Your task to perform on an android device: Go to Maps Image 0: 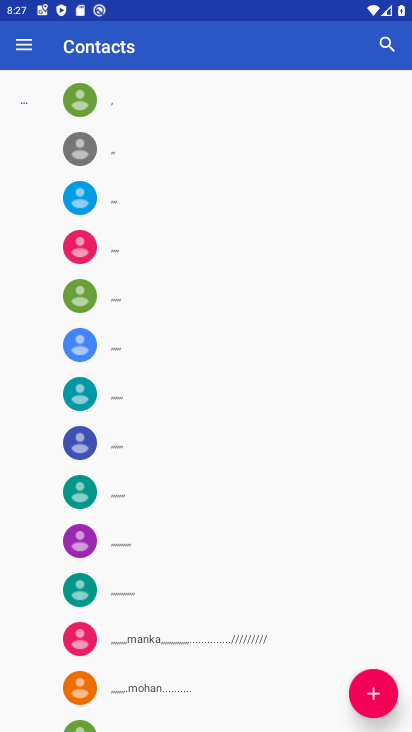
Step 0: press home button
Your task to perform on an android device: Go to Maps Image 1: 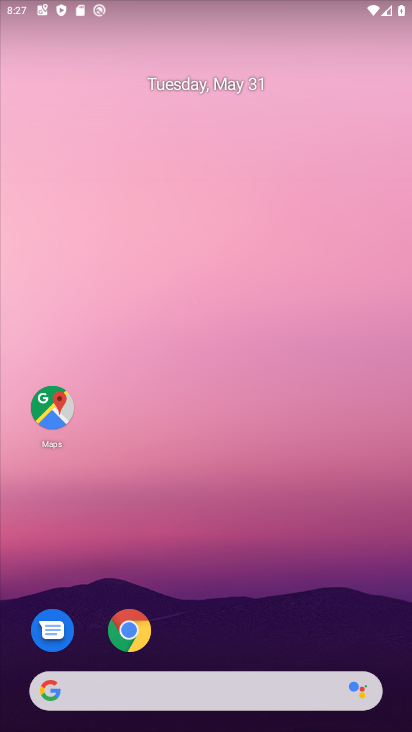
Step 1: click (77, 382)
Your task to perform on an android device: Go to Maps Image 2: 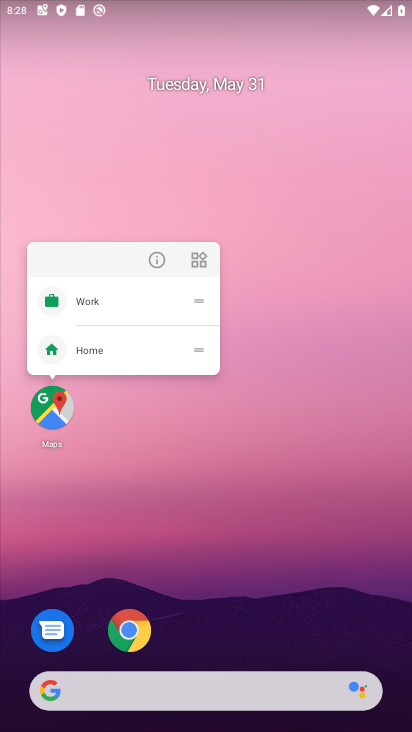
Step 2: click (46, 400)
Your task to perform on an android device: Go to Maps Image 3: 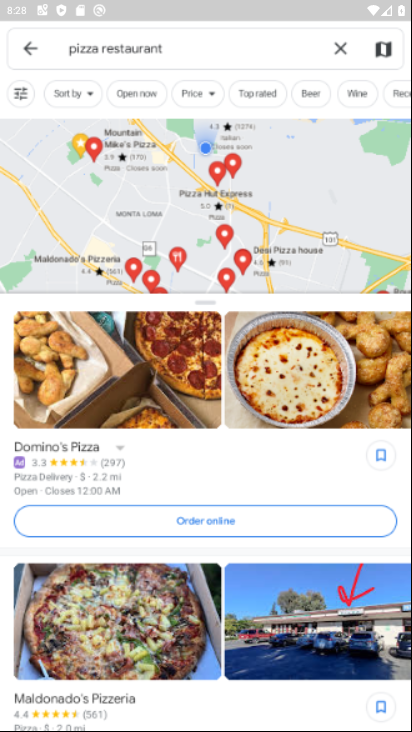
Step 3: click (43, 400)
Your task to perform on an android device: Go to Maps Image 4: 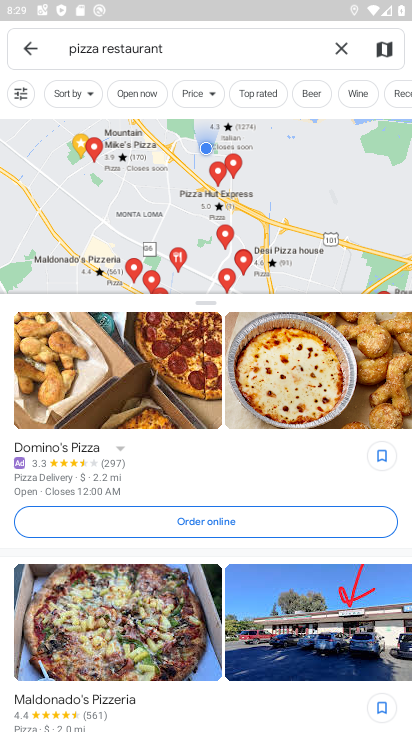
Step 4: task complete